Your task to perform on an android device: turn off notifications in google photos Image 0: 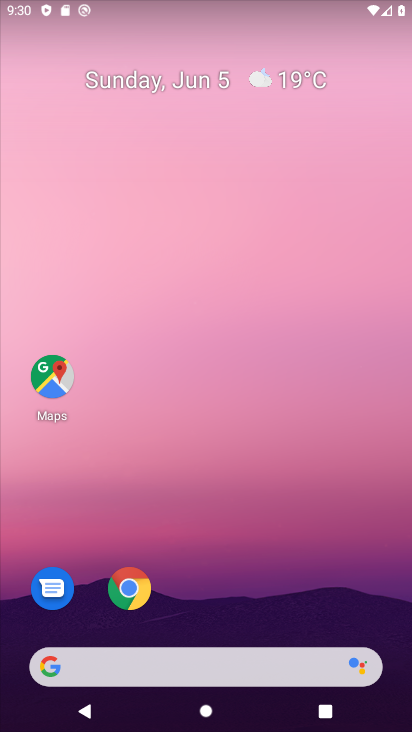
Step 0: drag from (312, 598) to (327, 197)
Your task to perform on an android device: turn off notifications in google photos Image 1: 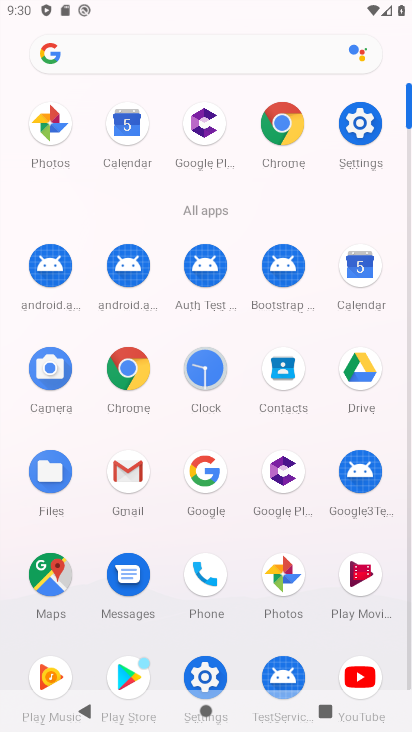
Step 1: click (280, 575)
Your task to perform on an android device: turn off notifications in google photos Image 2: 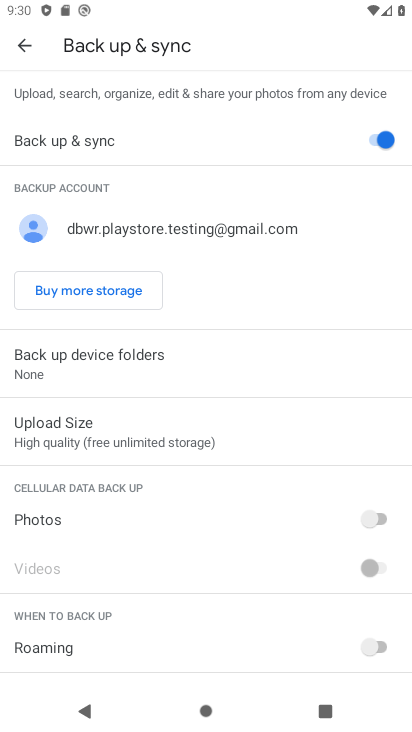
Step 2: press back button
Your task to perform on an android device: turn off notifications in google photos Image 3: 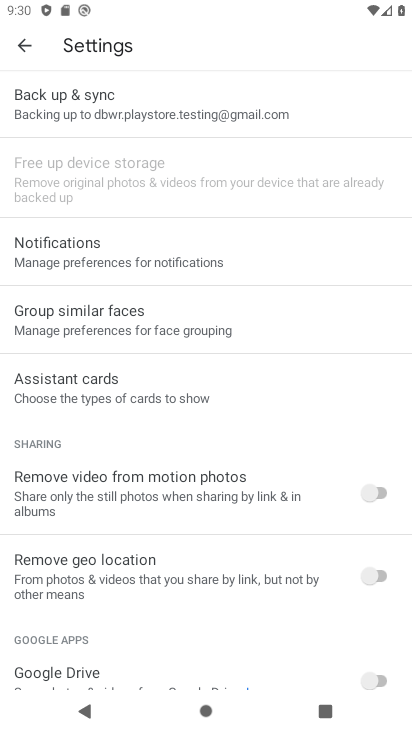
Step 3: click (234, 263)
Your task to perform on an android device: turn off notifications in google photos Image 4: 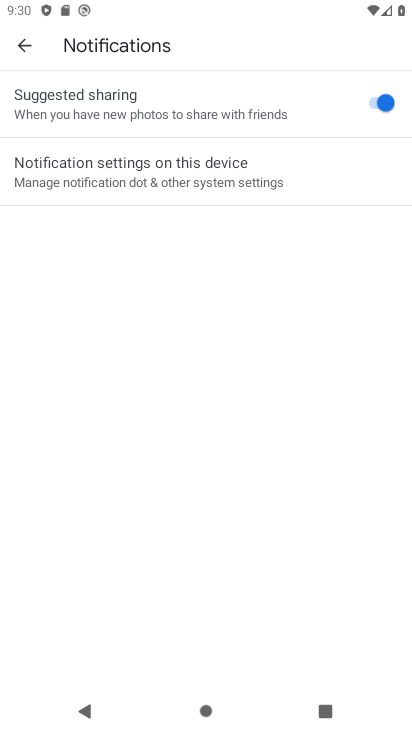
Step 4: click (199, 189)
Your task to perform on an android device: turn off notifications in google photos Image 5: 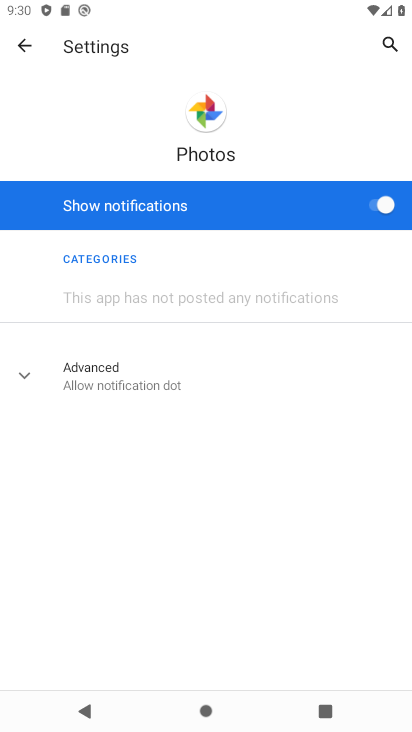
Step 5: click (390, 216)
Your task to perform on an android device: turn off notifications in google photos Image 6: 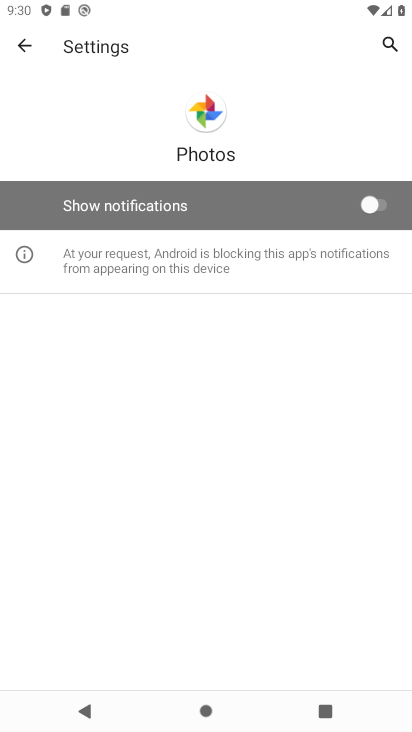
Step 6: task complete